Your task to perform on an android device: set the stopwatch Image 0: 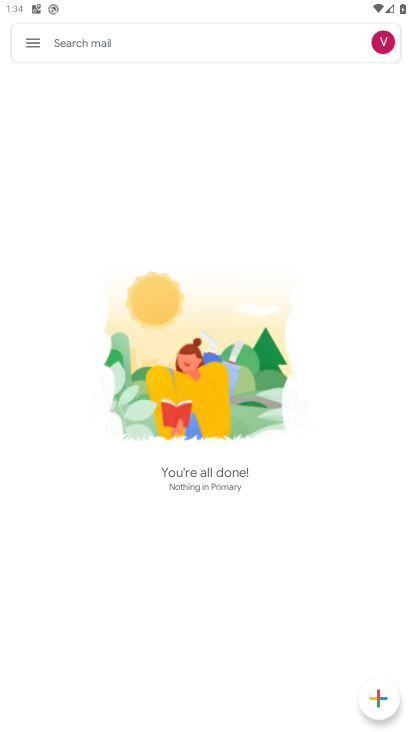
Step 0: press home button
Your task to perform on an android device: set the stopwatch Image 1: 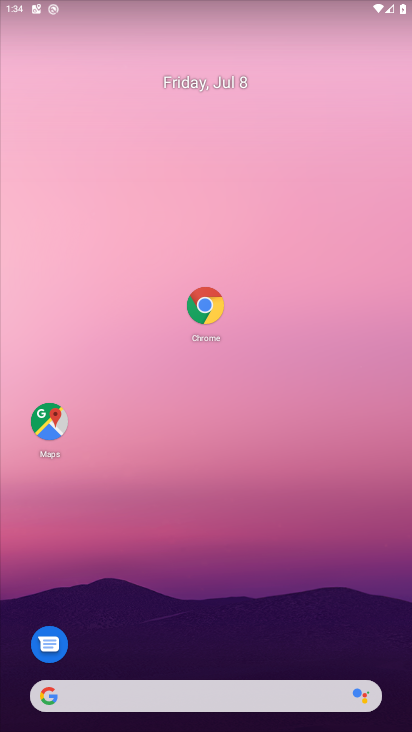
Step 1: drag from (238, 665) to (170, 278)
Your task to perform on an android device: set the stopwatch Image 2: 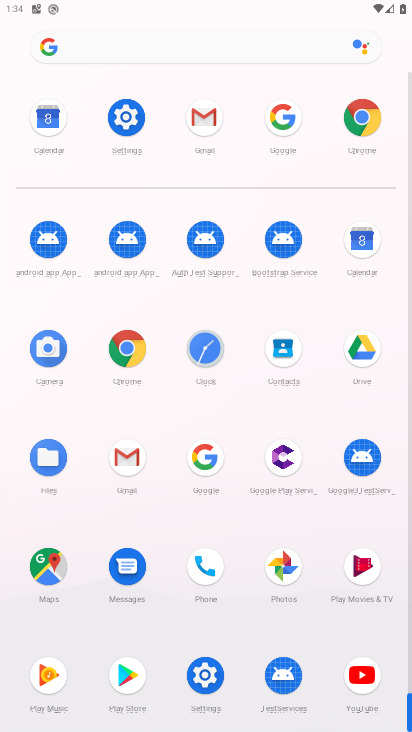
Step 2: click (206, 362)
Your task to perform on an android device: set the stopwatch Image 3: 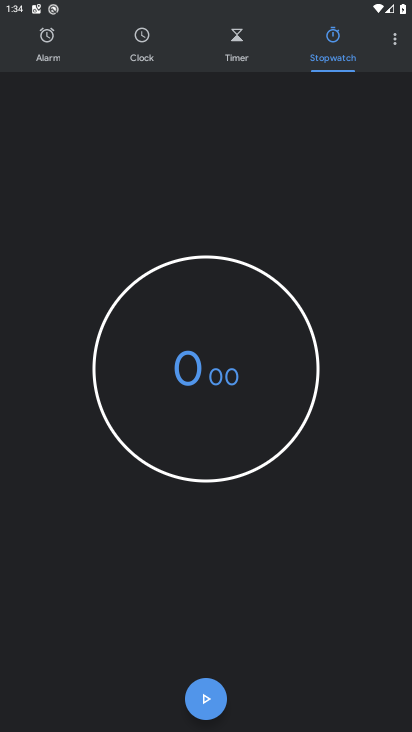
Step 3: click (207, 701)
Your task to perform on an android device: set the stopwatch Image 4: 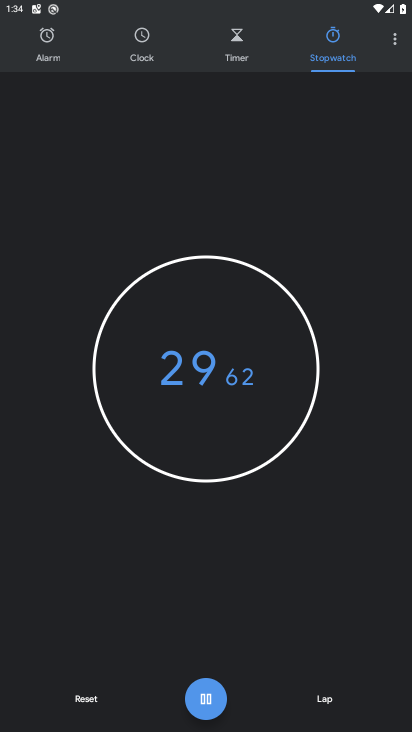
Step 4: click (204, 697)
Your task to perform on an android device: set the stopwatch Image 5: 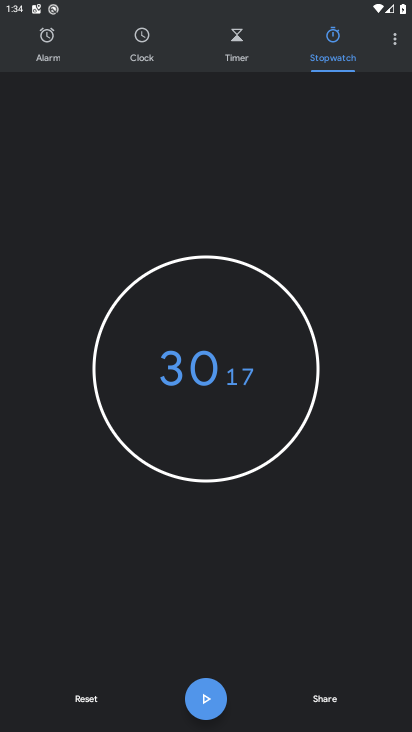
Step 5: task complete